Your task to perform on an android device: Open settings on Google Maps Image 0: 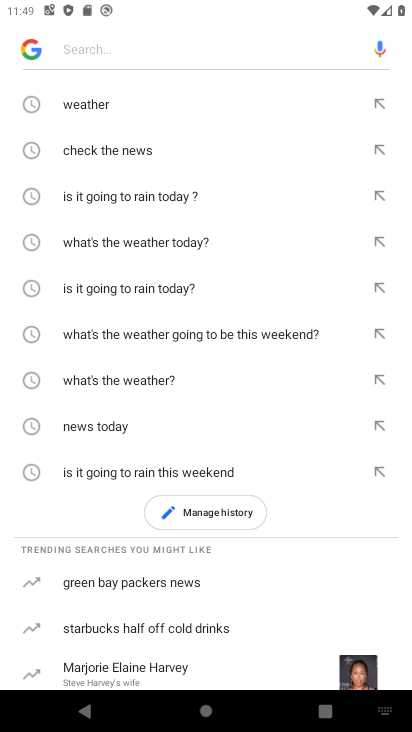
Step 0: press home button
Your task to perform on an android device: Open settings on Google Maps Image 1: 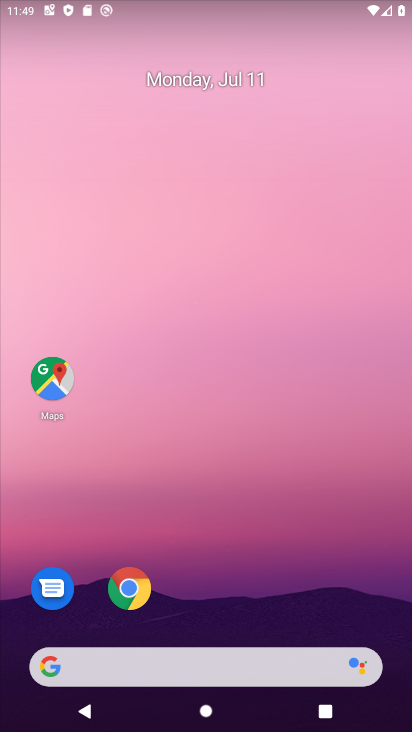
Step 1: drag from (259, 624) to (228, 68)
Your task to perform on an android device: Open settings on Google Maps Image 2: 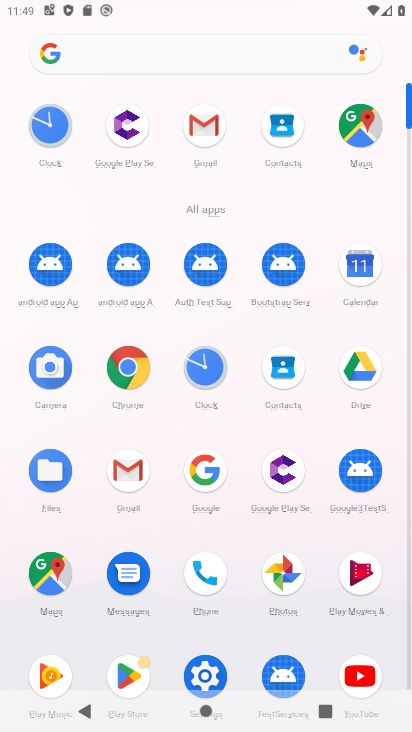
Step 2: click (365, 129)
Your task to perform on an android device: Open settings on Google Maps Image 3: 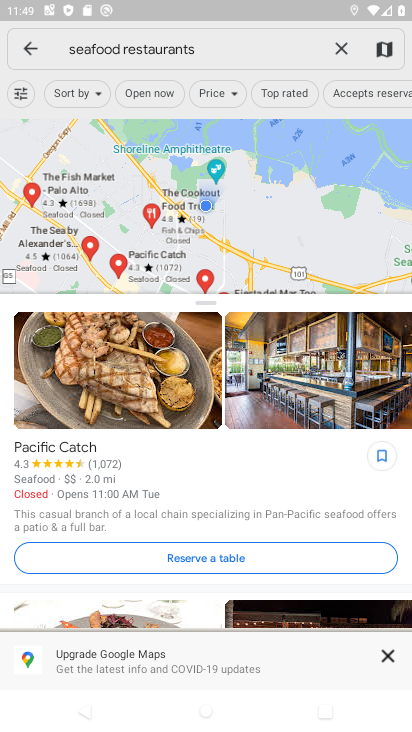
Step 3: click (28, 44)
Your task to perform on an android device: Open settings on Google Maps Image 4: 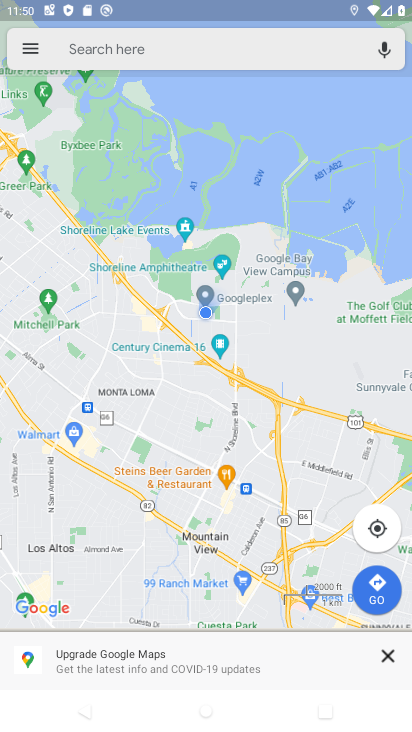
Step 4: click (28, 44)
Your task to perform on an android device: Open settings on Google Maps Image 5: 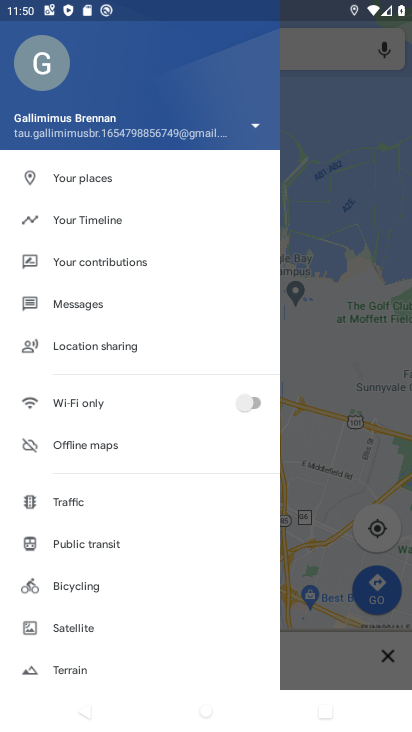
Step 5: drag from (113, 618) to (118, 221)
Your task to perform on an android device: Open settings on Google Maps Image 6: 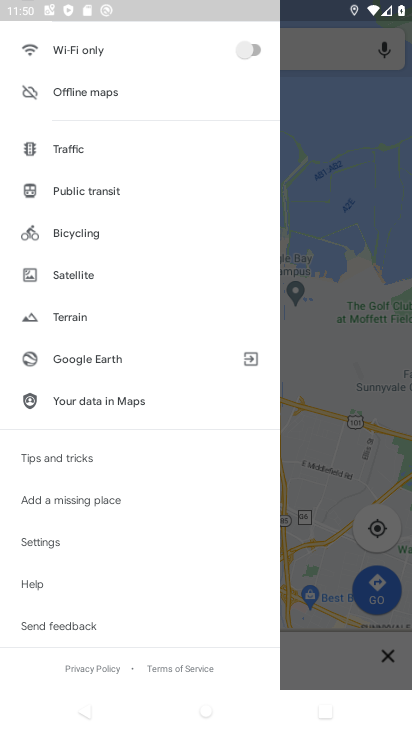
Step 6: click (53, 541)
Your task to perform on an android device: Open settings on Google Maps Image 7: 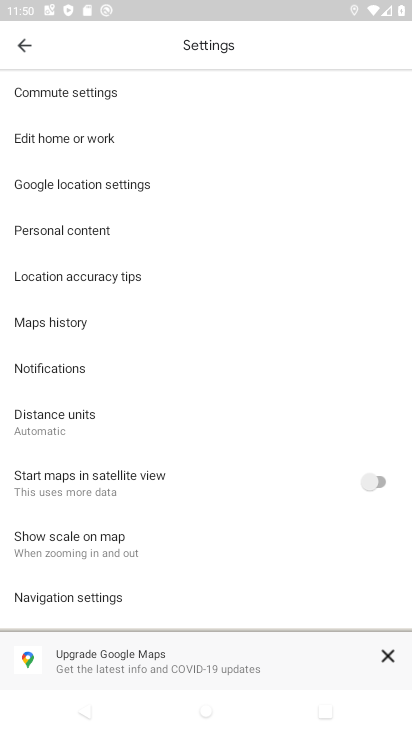
Step 7: task complete